Your task to perform on an android device: Go to sound settings Image 0: 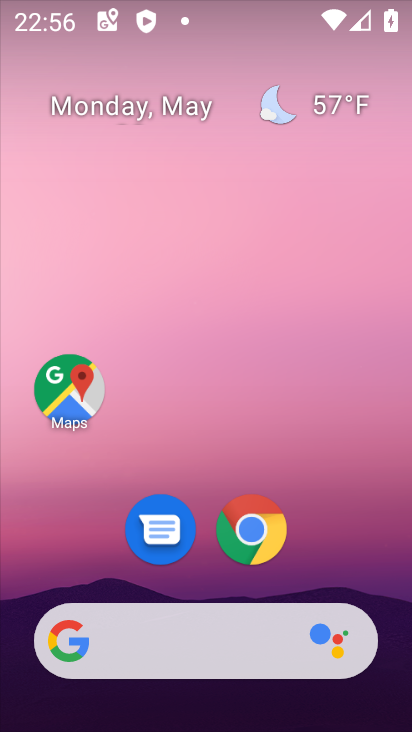
Step 0: drag from (221, 730) to (223, 188)
Your task to perform on an android device: Go to sound settings Image 1: 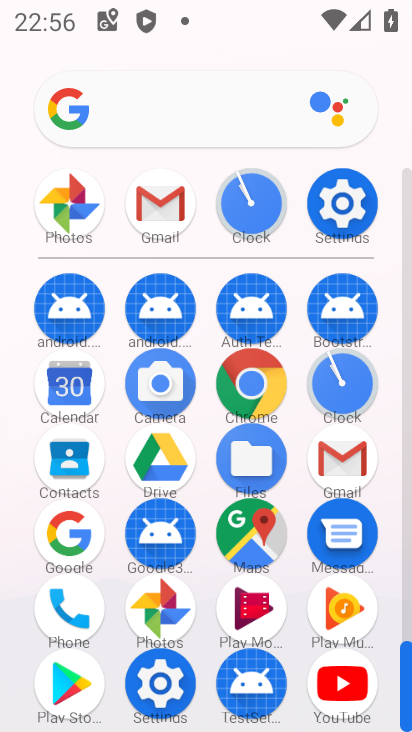
Step 1: click (339, 200)
Your task to perform on an android device: Go to sound settings Image 2: 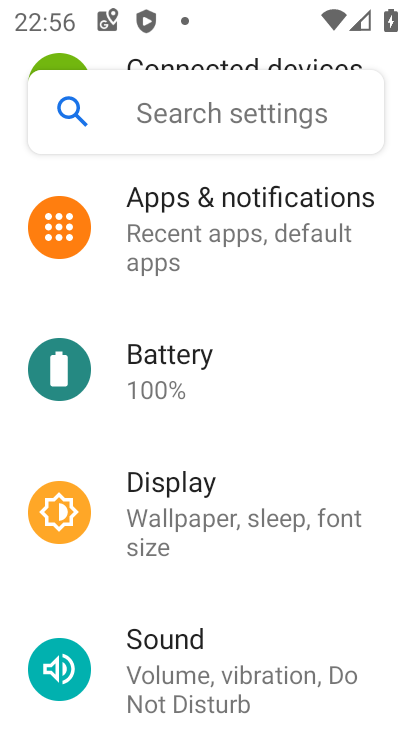
Step 2: click (148, 666)
Your task to perform on an android device: Go to sound settings Image 3: 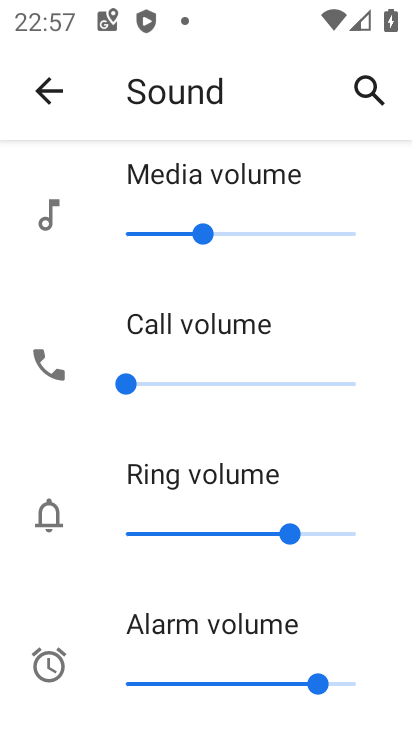
Step 3: task complete